Your task to perform on an android device: open chrome and create a bookmark for the current page Image 0: 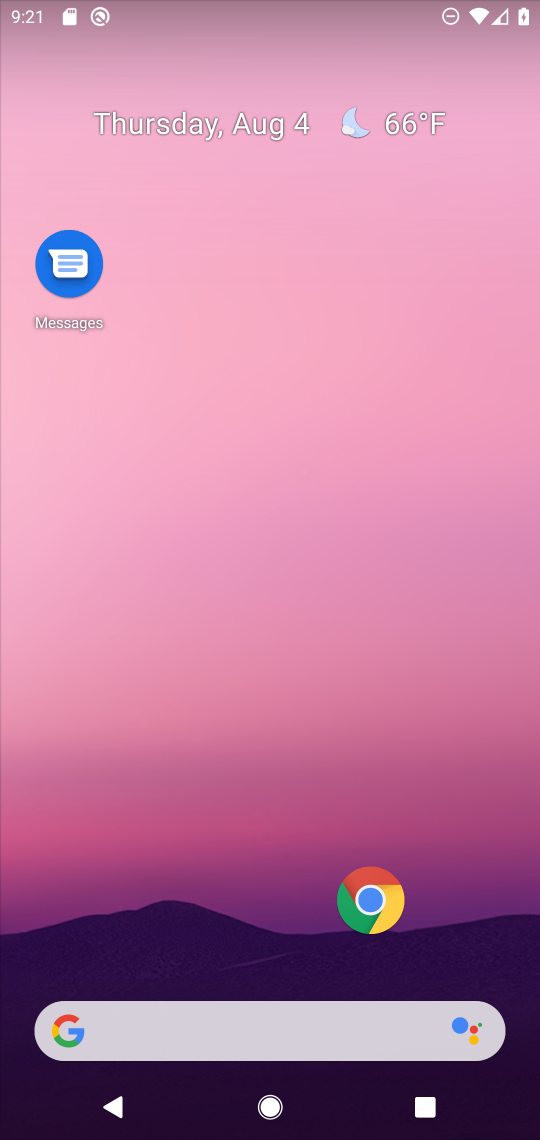
Step 0: drag from (169, 953) to (40, 469)
Your task to perform on an android device: open chrome and create a bookmark for the current page Image 1: 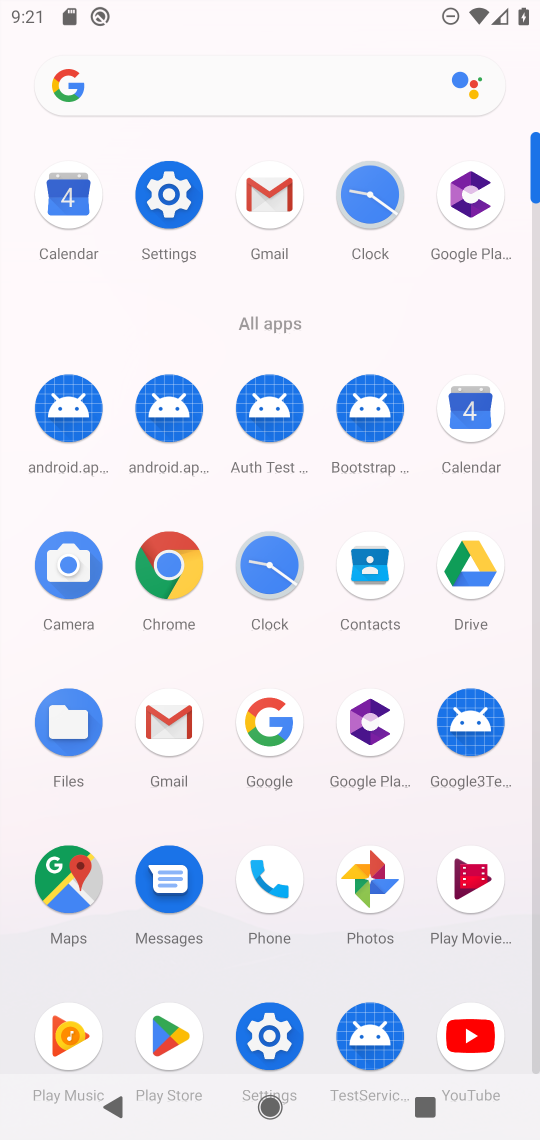
Step 1: click (139, 547)
Your task to perform on an android device: open chrome and create a bookmark for the current page Image 2: 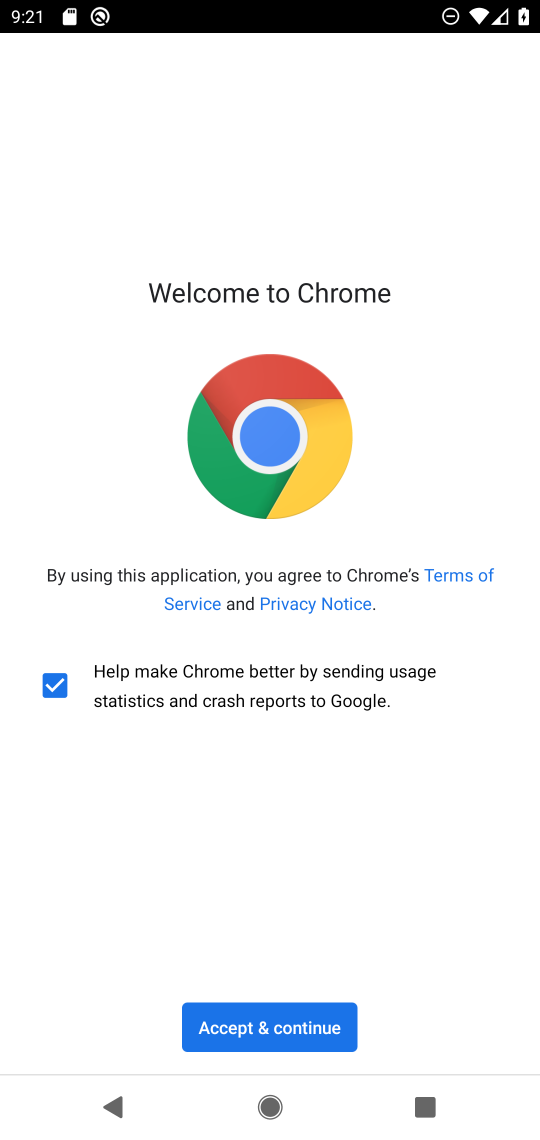
Step 2: click (303, 997)
Your task to perform on an android device: open chrome and create a bookmark for the current page Image 3: 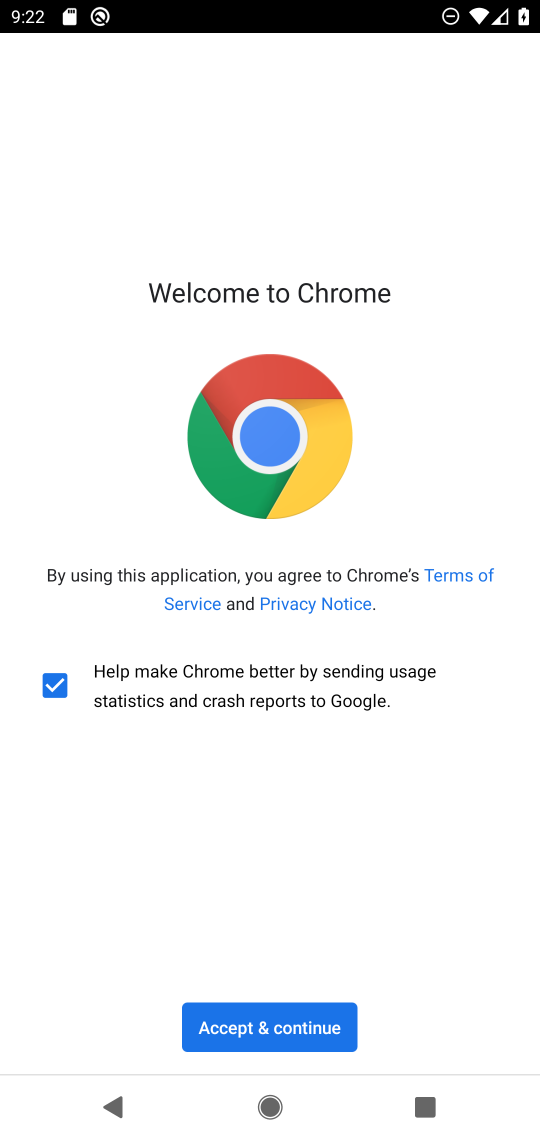
Step 3: click (303, 997)
Your task to perform on an android device: open chrome and create a bookmark for the current page Image 4: 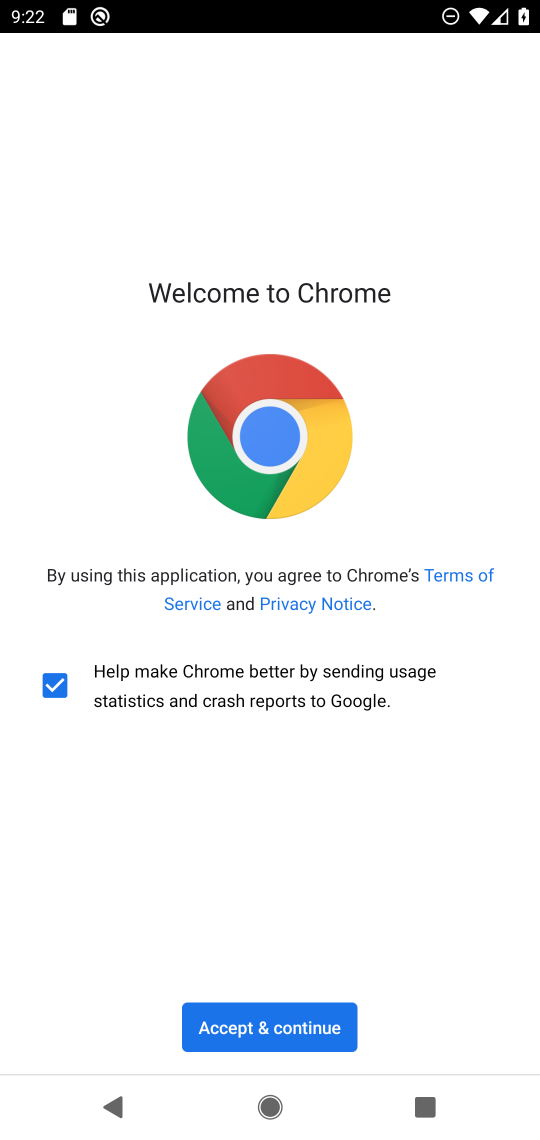
Step 4: click (295, 1028)
Your task to perform on an android device: open chrome and create a bookmark for the current page Image 5: 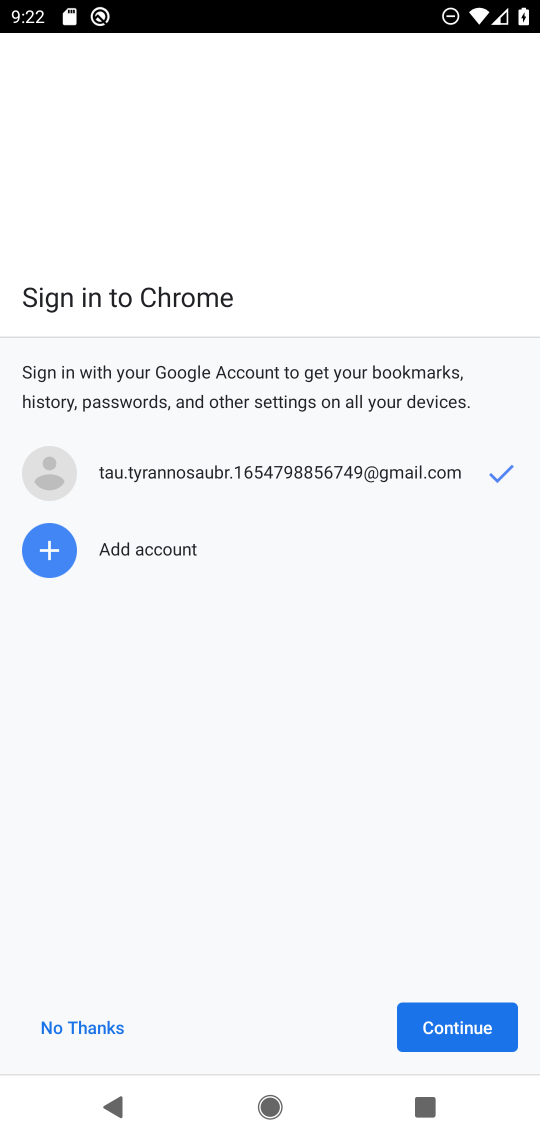
Step 5: click (87, 1016)
Your task to perform on an android device: open chrome and create a bookmark for the current page Image 6: 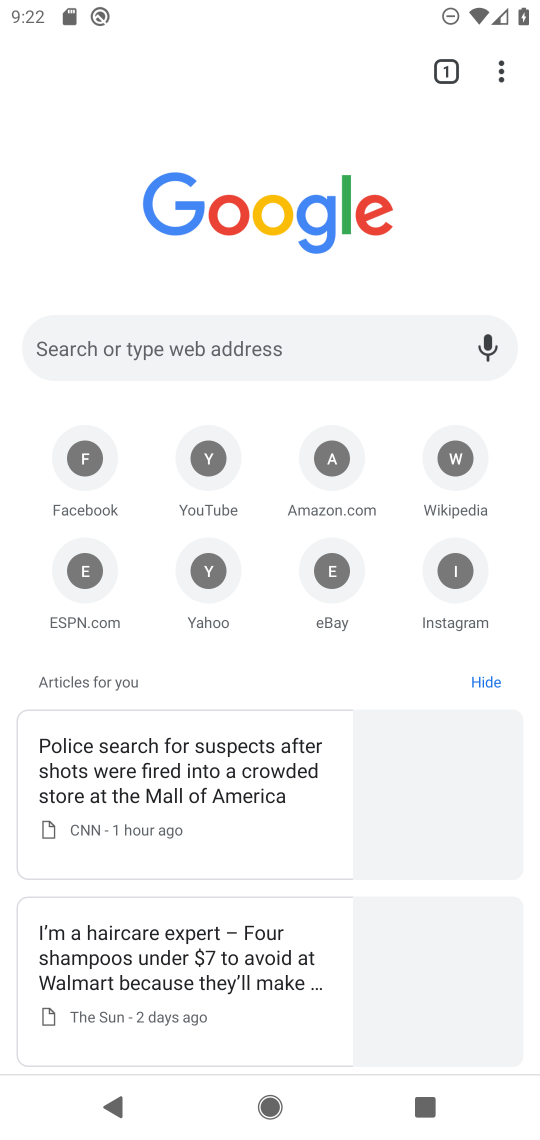
Step 6: click (505, 64)
Your task to perform on an android device: open chrome and create a bookmark for the current page Image 7: 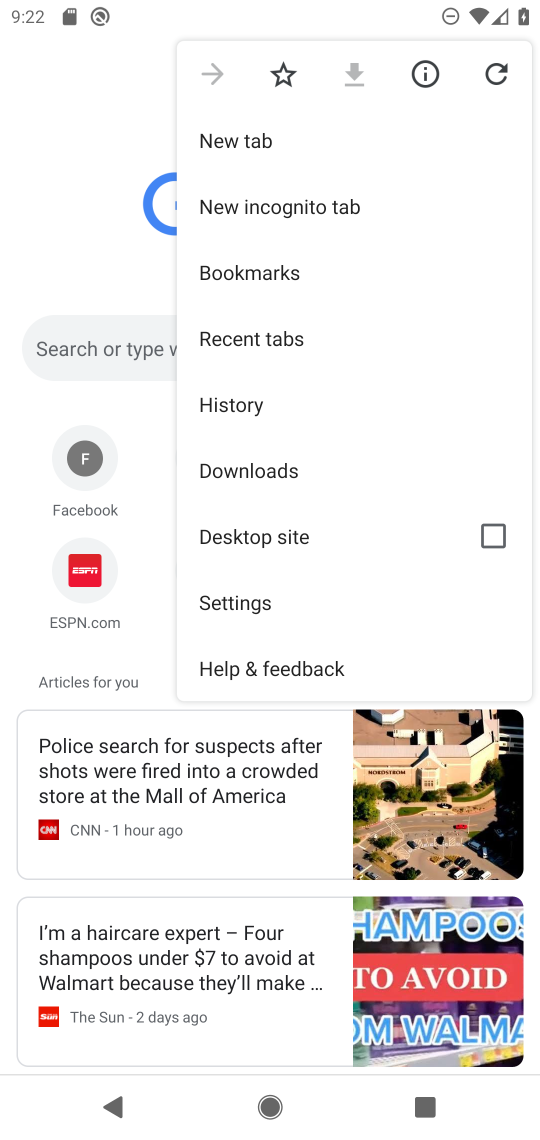
Step 7: click (281, 82)
Your task to perform on an android device: open chrome and create a bookmark for the current page Image 8: 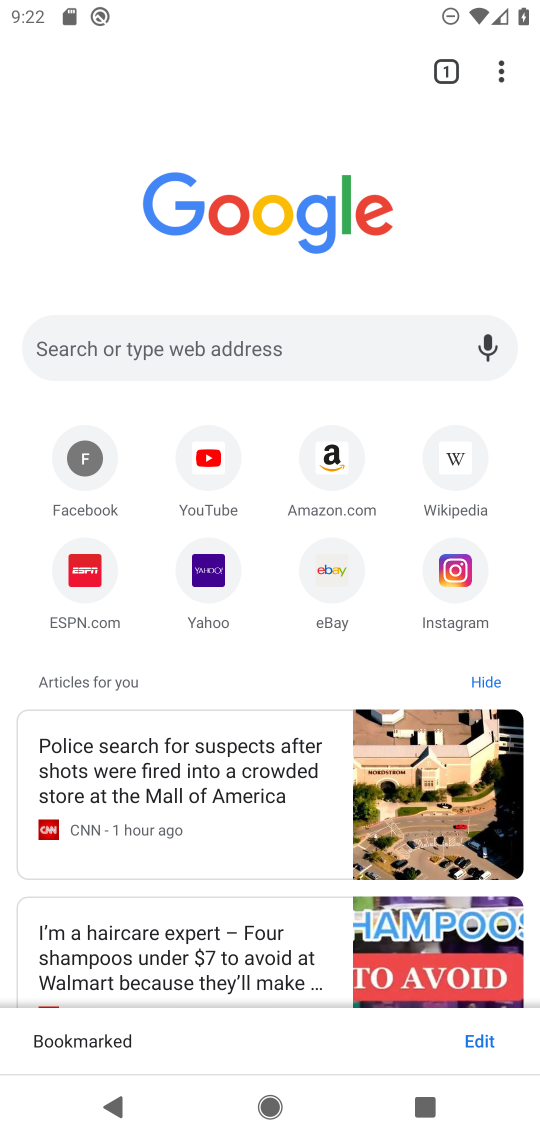
Step 8: task complete